Your task to perform on an android device: toggle wifi Image 0: 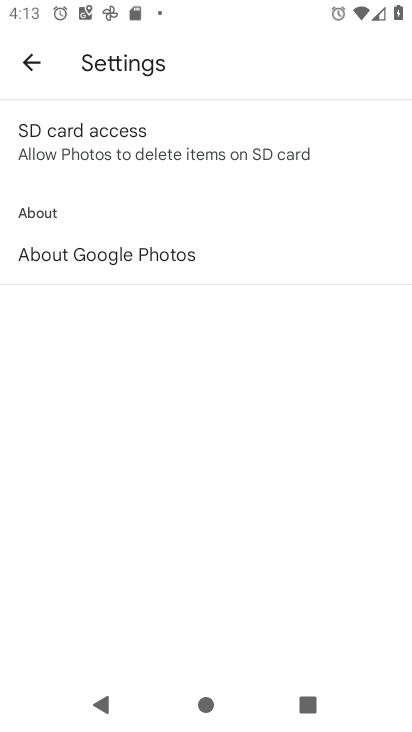
Step 0: press home button
Your task to perform on an android device: toggle wifi Image 1: 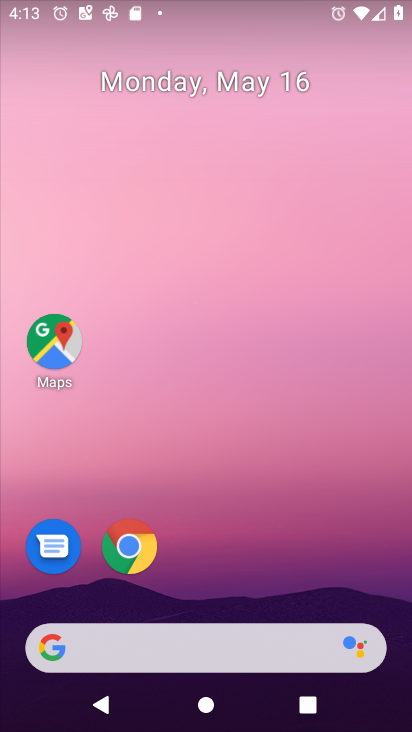
Step 1: drag from (310, 581) to (336, 107)
Your task to perform on an android device: toggle wifi Image 2: 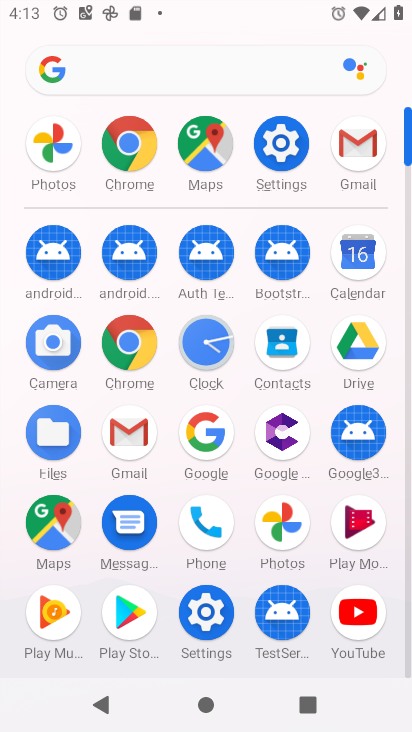
Step 2: click (221, 626)
Your task to perform on an android device: toggle wifi Image 3: 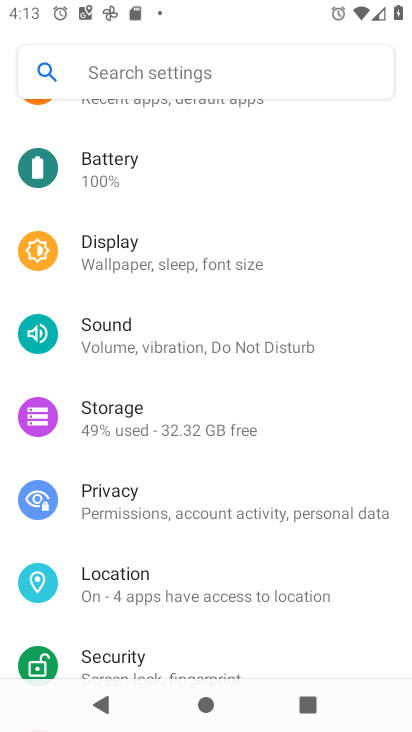
Step 3: drag from (308, 638) to (345, 397)
Your task to perform on an android device: toggle wifi Image 4: 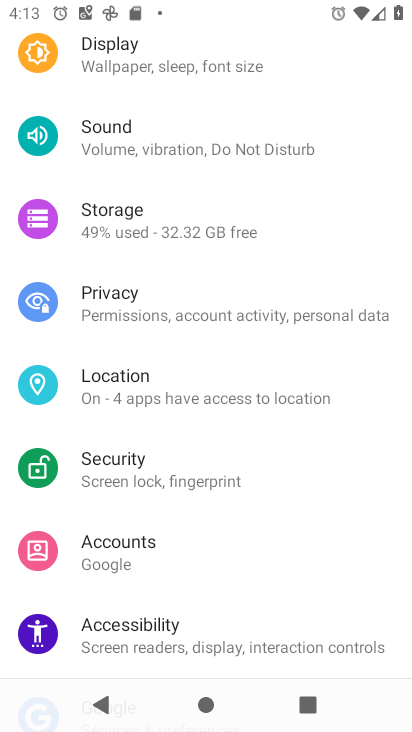
Step 4: drag from (315, 629) to (326, 444)
Your task to perform on an android device: toggle wifi Image 5: 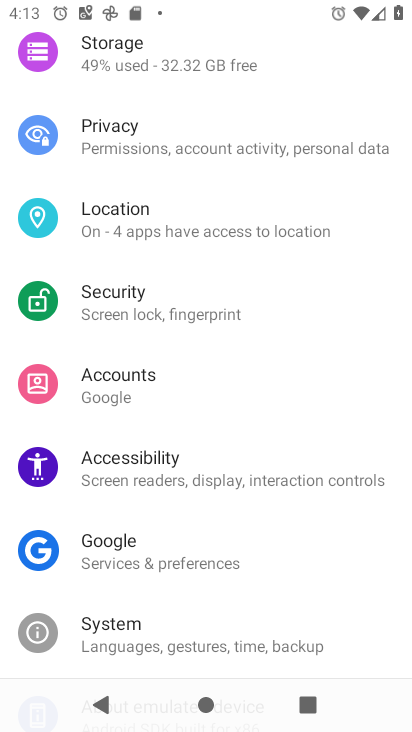
Step 5: drag from (299, 613) to (316, 378)
Your task to perform on an android device: toggle wifi Image 6: 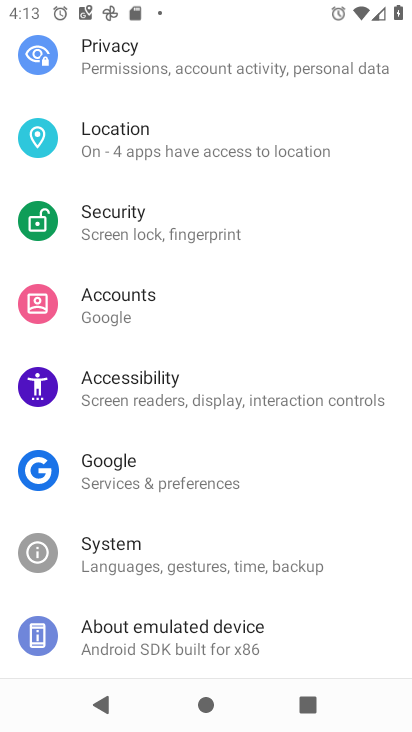
Step 6: drag from (334, 227) to (352, 426)
Your task to perform on an android device: toggle wifi Image 7: 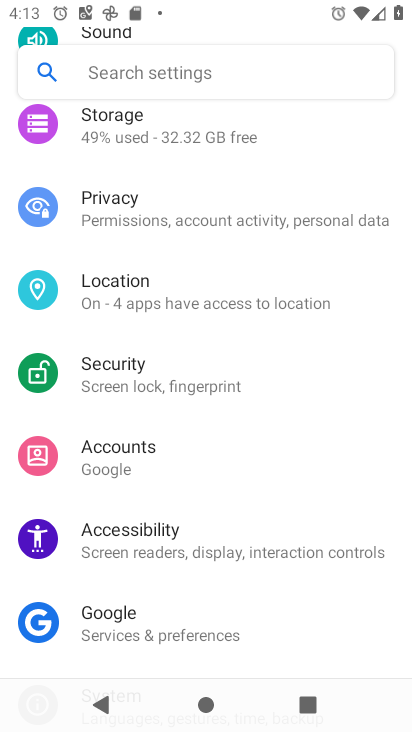
Step 7: drag from (370, 165) to (362, 344)
Your task to perform on an android device: toggle wifi Image 8: 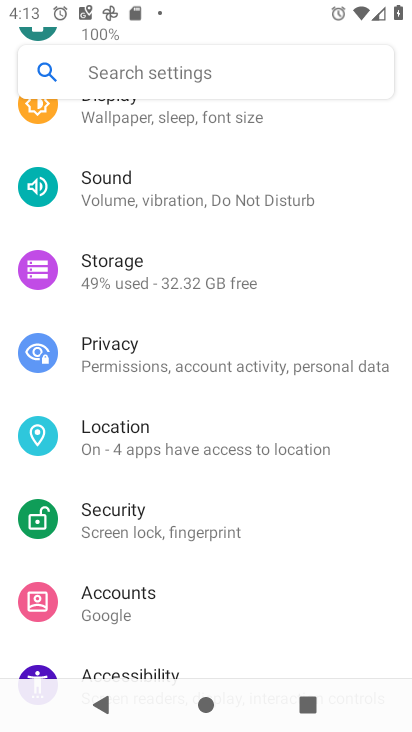
Step 8: drag from (354, 239) to (348, 450)
Your task to perform on an android device: toggle wifi Image 9: 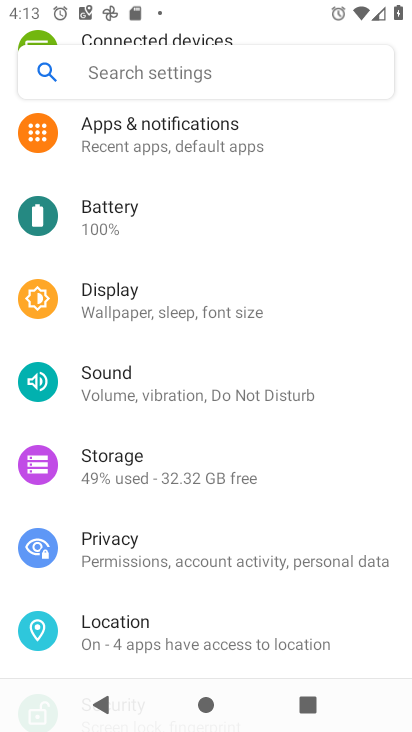
Step 9: drag from (354, 238) to (352, 437)
Your task to perform on an android device: toggle wifi Image 10: 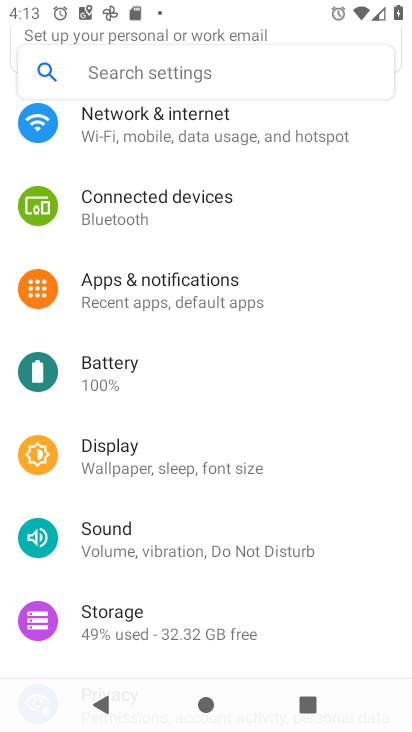
Step 10: drag from (333, 238) to (324, 432)
Your task to perform on an android device: toggle wifi Image 11: 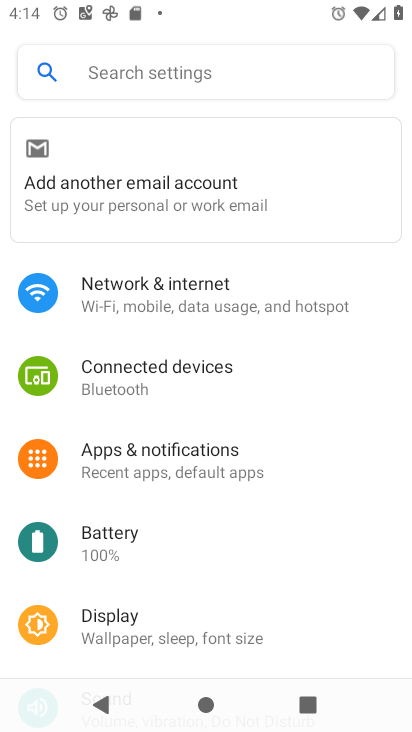
Step 11: click (275, 304)
Your task to perform on an android device: toggle wifi Image 12: 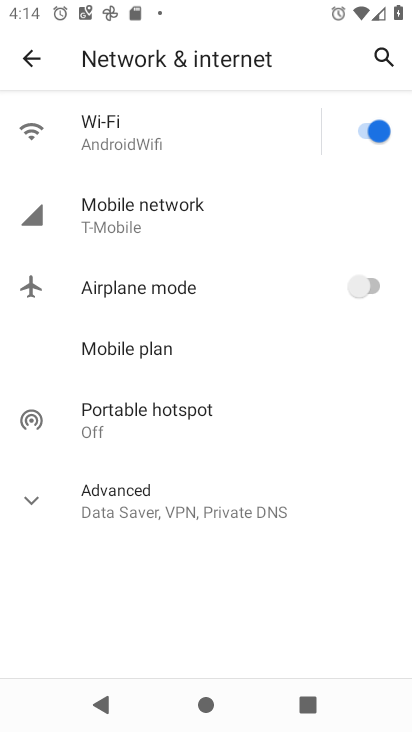
Step 12: click (382, 135)
Your task to perform on an android device: toggle wifi Image 13: 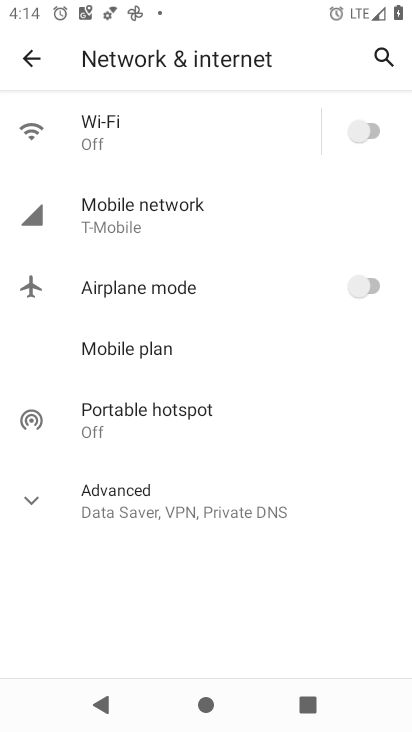
Step 13: task complete